Your task to perform on an android device: Go to network settings Image 0: 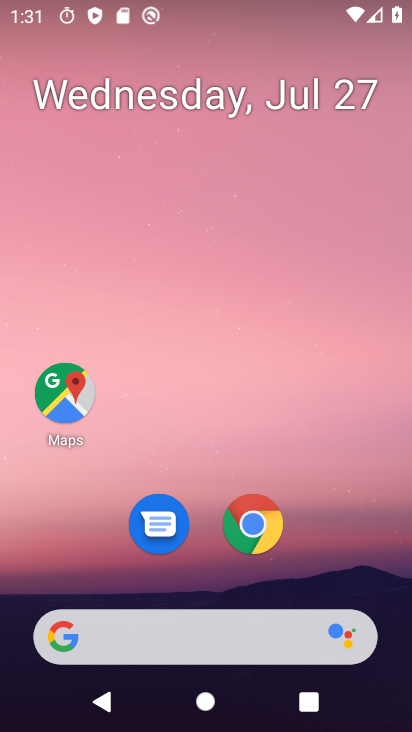
Step 0: drag from (343, 454) to (350, 101)
Your task to perform on an android device: Go to network settings Image 1: 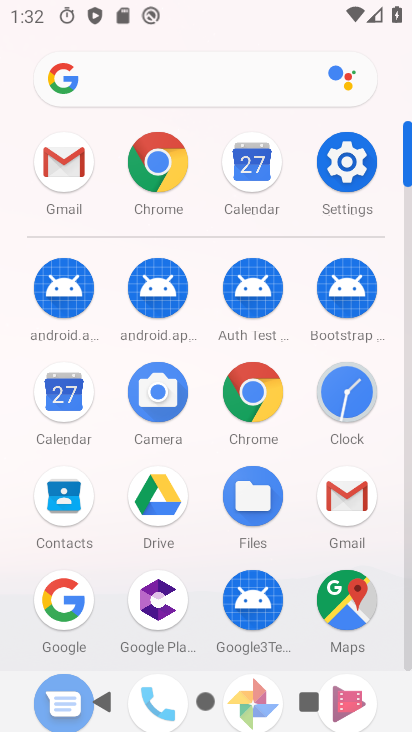
Step 1: click (356, 155)
Your task to perform on an android device: Go to network settings Image 2: 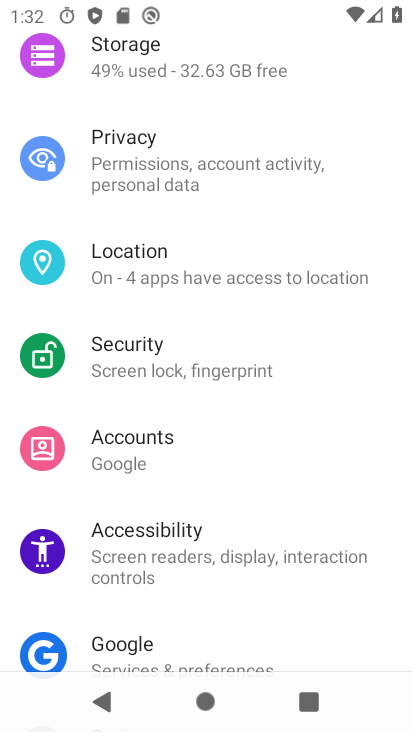
Step 2: drag from (235, 120) to (267, 374)
Your task to perform on an android device: Go to network settings Image 3: 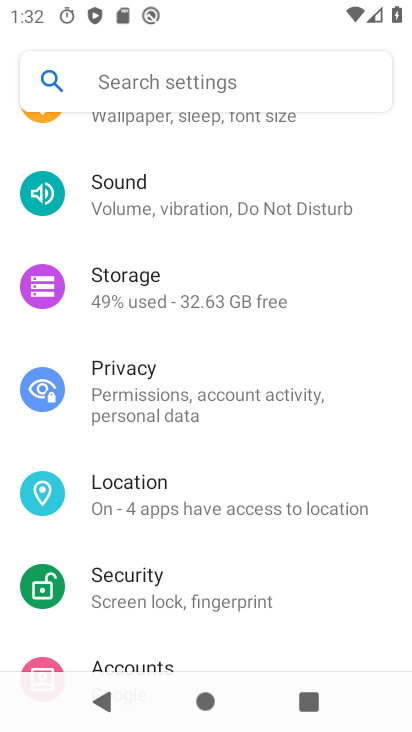
Step 3: drag from (209, 188) to (213, 504)
Your task to perform on an android device: Go to network settings Image 4: 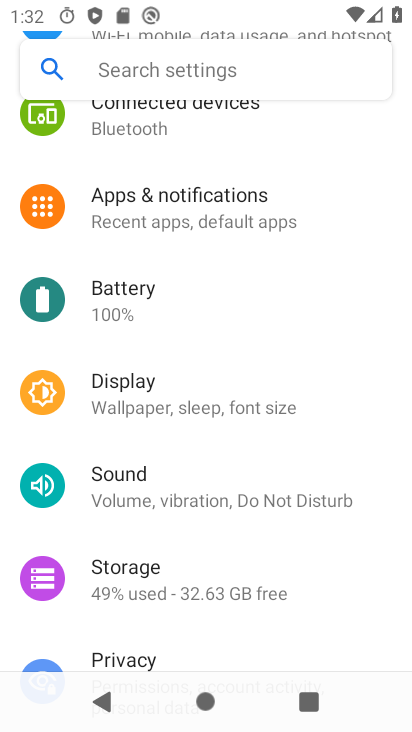
Step 4: drag from (207, 165) to (197, 473)
Your task to perform on an android device: Go to network settings Image 5: 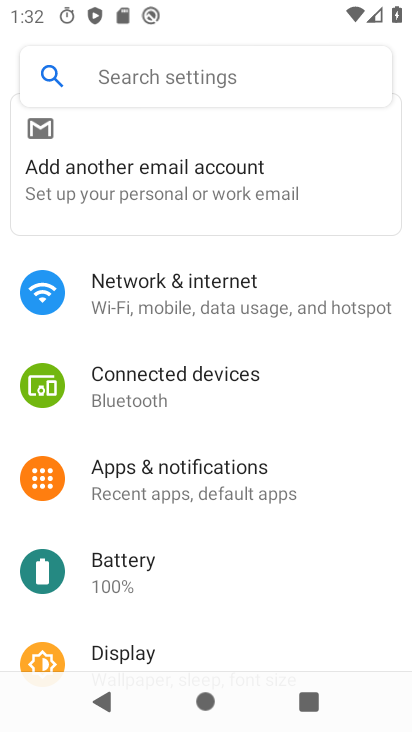
Step 5: click (195, 283)
Your task to perform on an android device: Go to network settings Image 6: 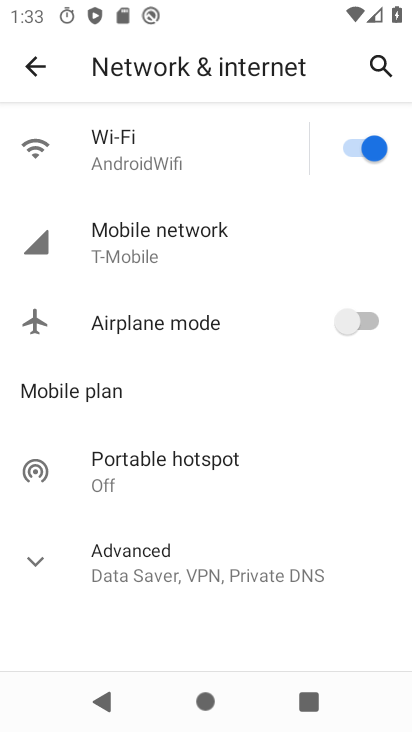
Step 6: task complete